Your task to perform on an android device: star an email in the gmail app Image 0: 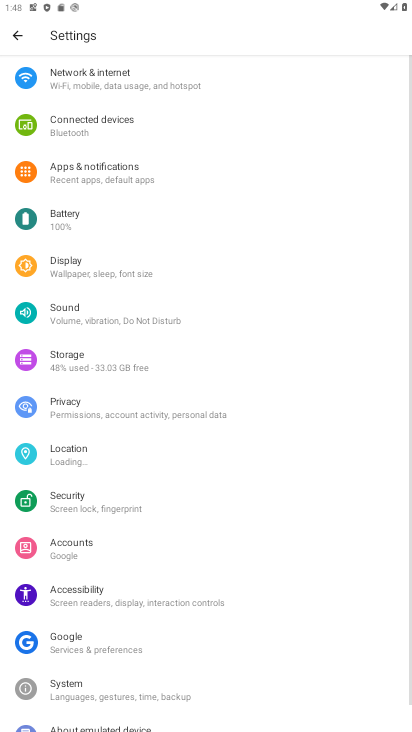
Step 0: press home button
Your task to perform on an android device: star an email in the gmail app Image 1: 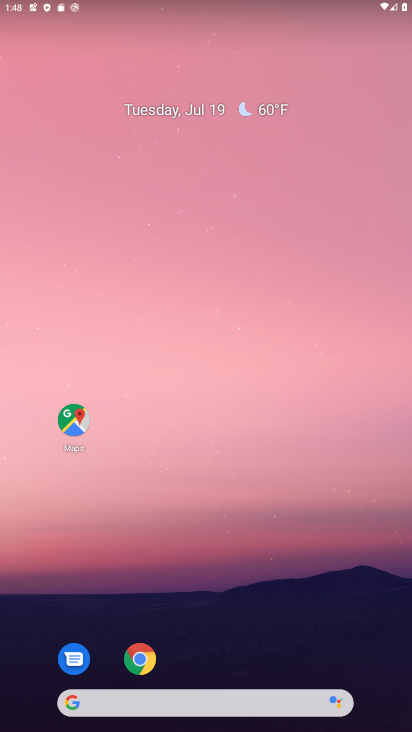
Step 1: drag from (306, 632) to (242, 259)
Your task to perform on an android device: star an email in the gmail app Image 2: 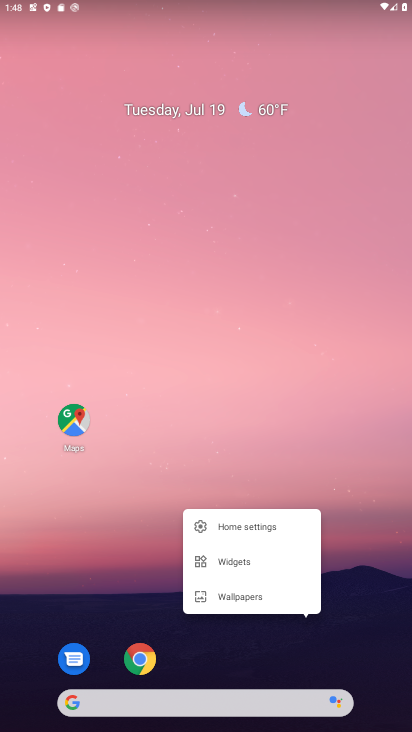
Step 2: click (367, 585)
Your task to perform on an android device: star an email in the gmail app Image 3: 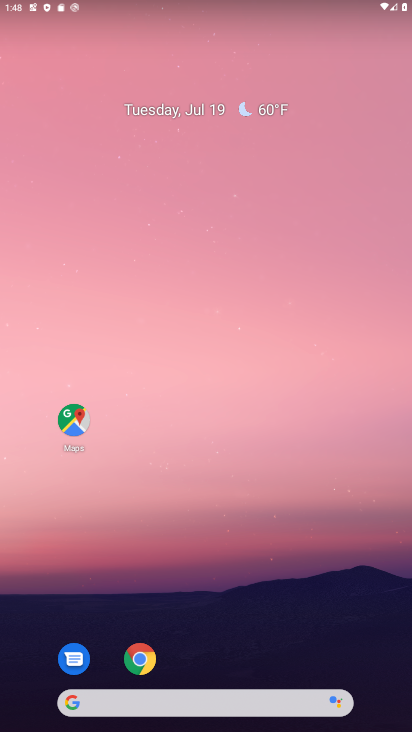
Step 3: drag from (310, 630) to (315, 202)
Your task to perform on an android device: star an email in the gmail app Image 4: 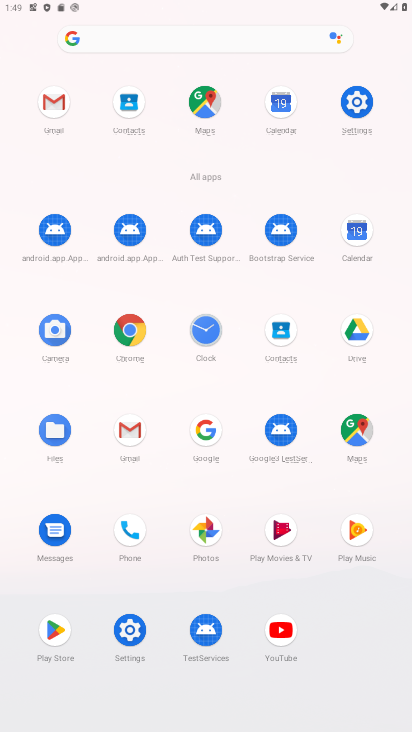
Step 4: click (129, 424)
Your task to perform on an android device: star an email in the gmail app Image 5: 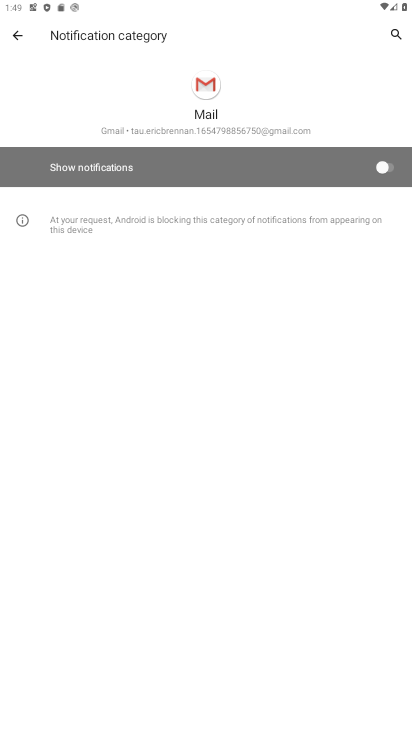
Step 5: click (17, 33)
Your task to perform on an android device: star an email in the gmail app Image 6: 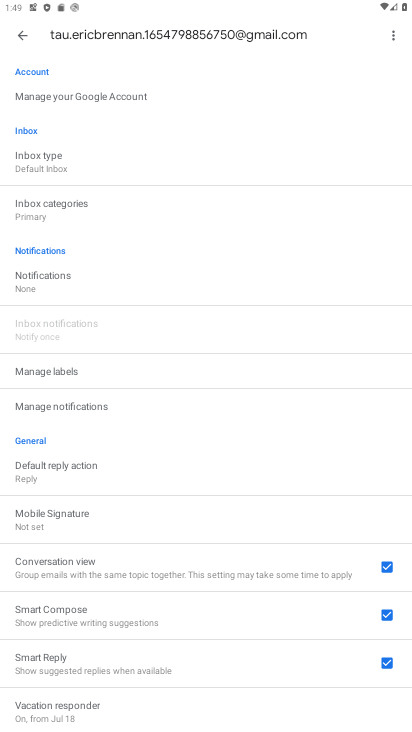
Step 6: click (22, 39)
Your task to perform on an android device: star an email in the gmail app Image 7: 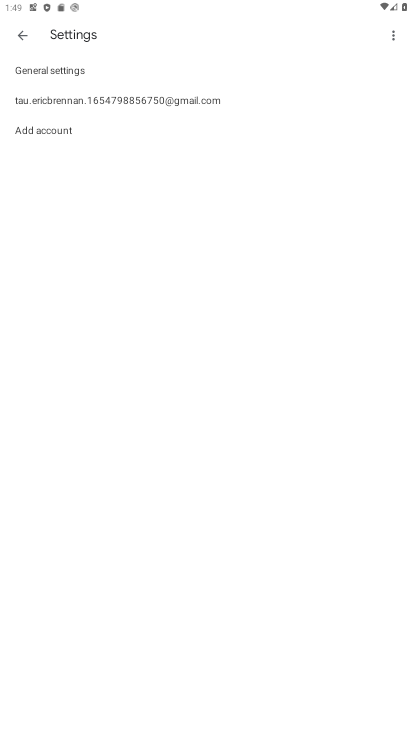
Step 7: click (22, 34)
Your task to perform on an android device: star an email in the gmail app Image 8: 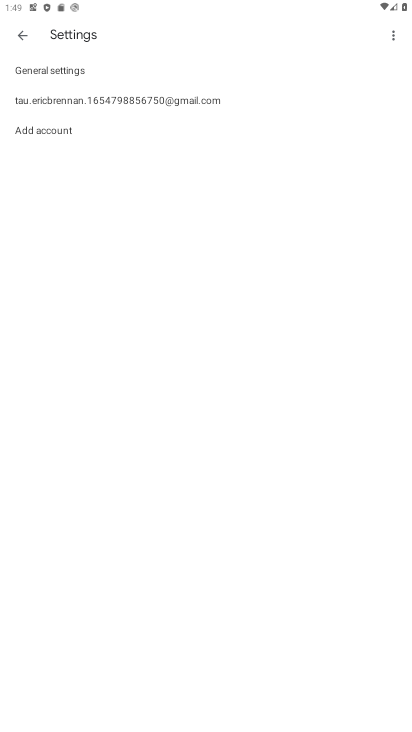
Step 8: click (22, 34)
Your task to perform on an android device: star an email in the gmail app Image 9: 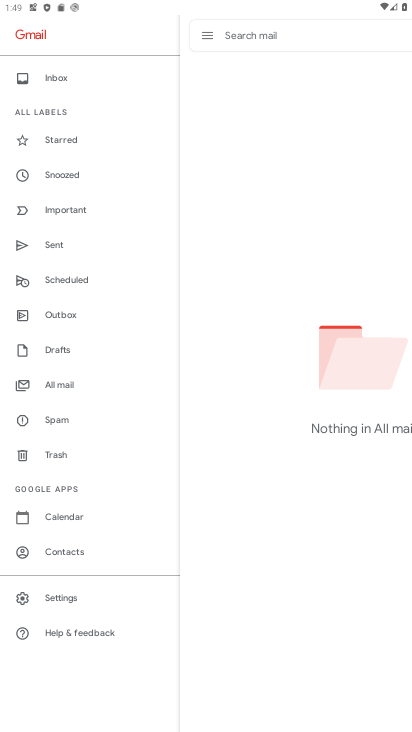
Step 9: task complete